Your task to perform on an android device: check battery use Image 0: 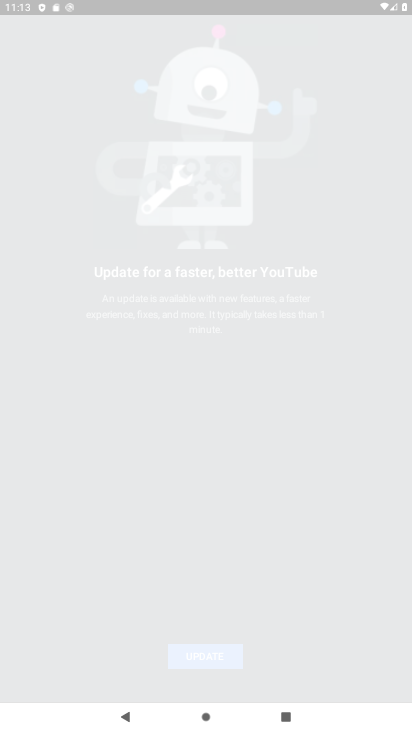
Step 0: press home button
Your task to perform on an android device: check battery use Image 1: 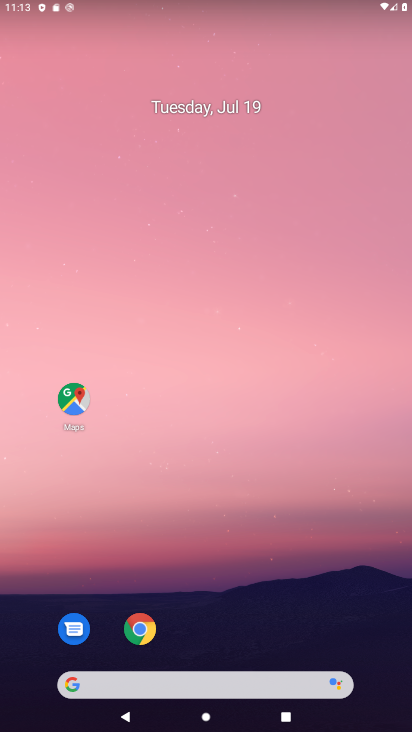
Step 1: drag from (305, 548) to (272, 171)
Your task to perform on an android device: check battery use Image 2: 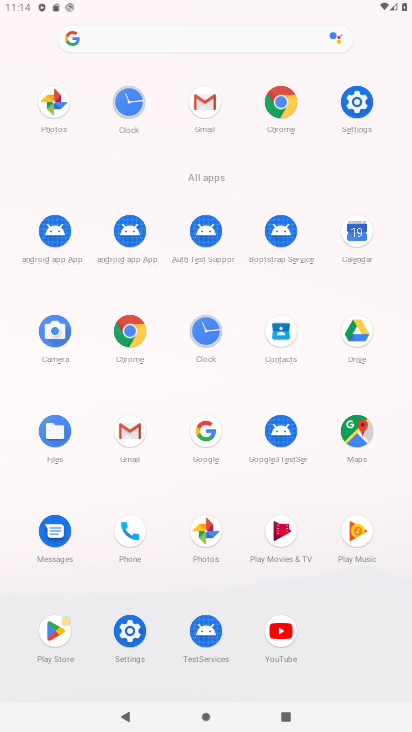
Step 2: click (349, 102)
Your task to perform on an android device: check battery use Image 3: 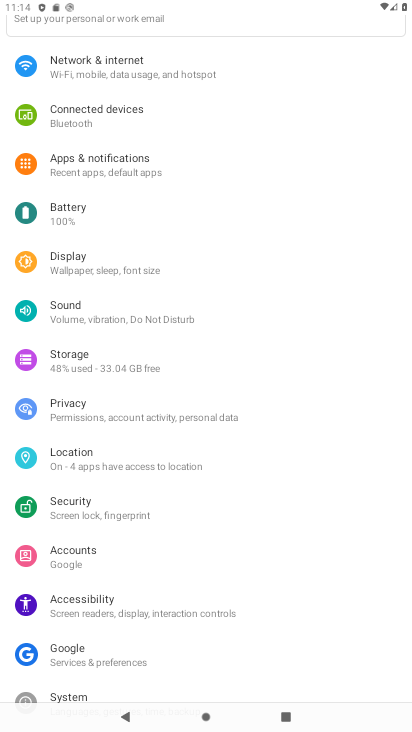
Step 3: click (85, 221)
Your task to perform on an android device: check battery use Image 4: 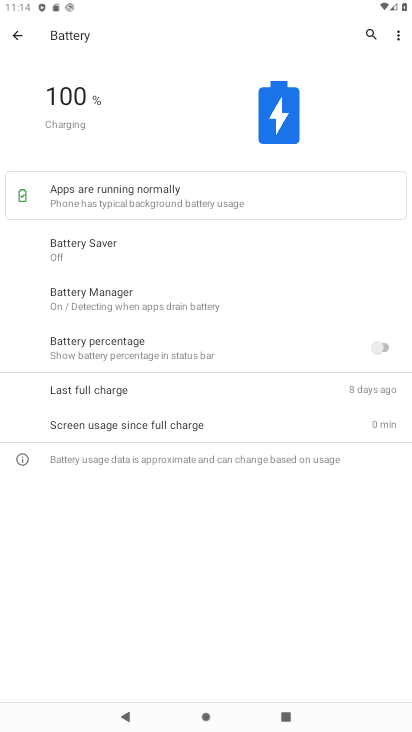
Step 4: click (397, 34)
Your task to perform on an android device: check battery use Image 5: 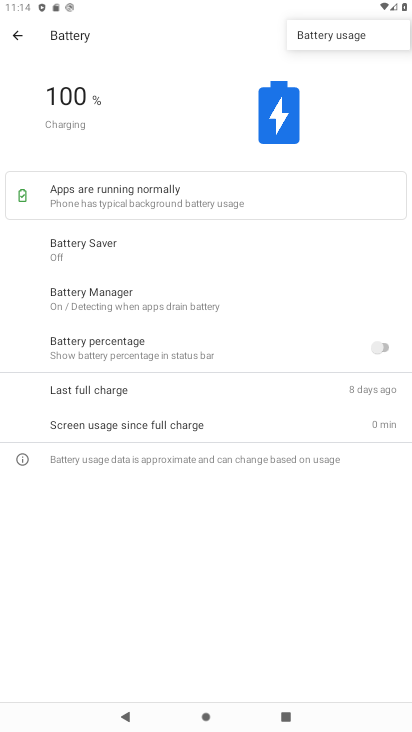
Step 5: click (364, 35)
Your task to perform on an android device: check battery use Image 6: 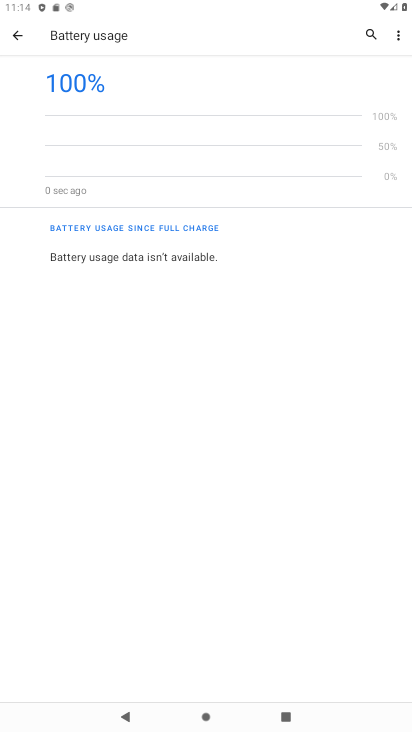
Step 6: task complete